Your task to perform on an android device: find snoozed emails in the gmail app Image 0: 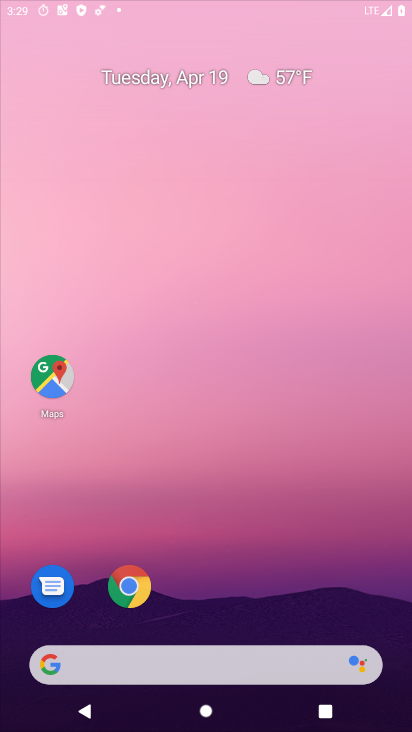
Step 0: click (303, 173)
Your task to perform on an android device: find snoozed emails in the gmail app Image 1: 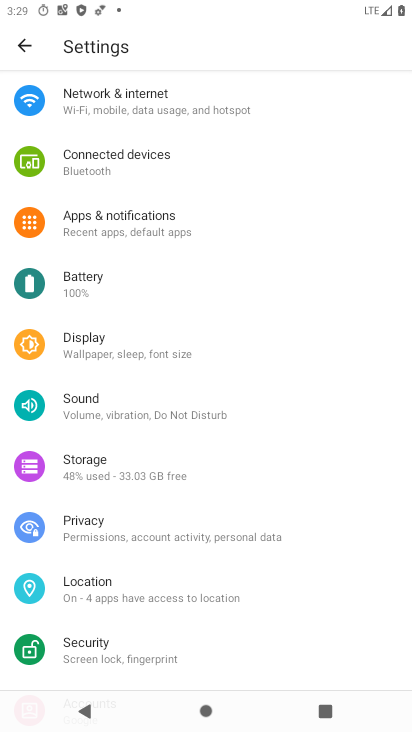
Step 1: press home button
Your task to perform on an android device: find snoozed emails in the gmail app Image 2: 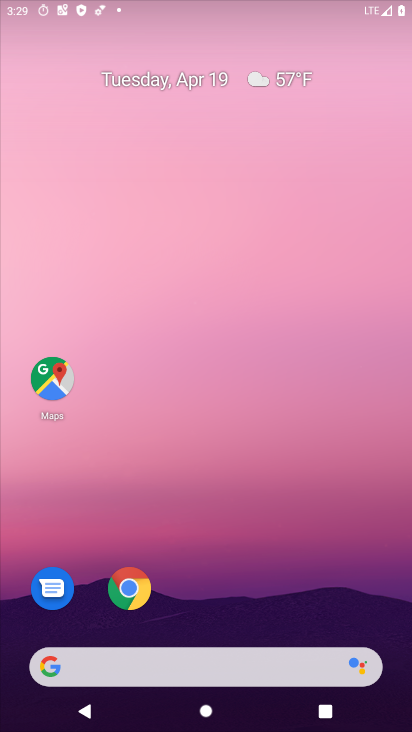
Step 2: drag from (286, 535) to (360, 162)
Your task to perform on an android device: find snoozed emails in the gmail app Image 3: 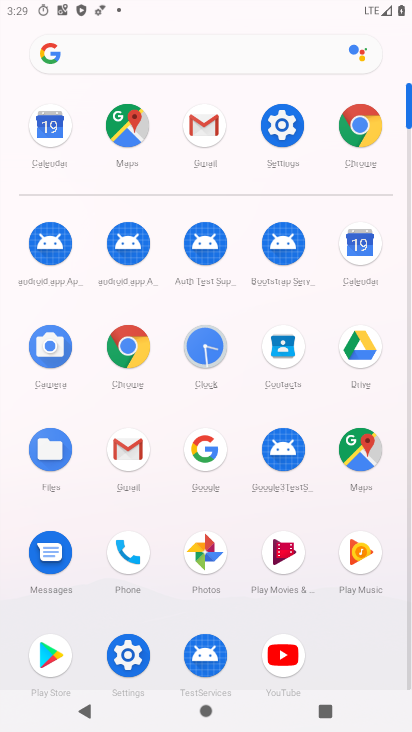
Step 3: click (129, 451)
Your task to perform on an android device: find snoozed emails in the gmail app Image 4: 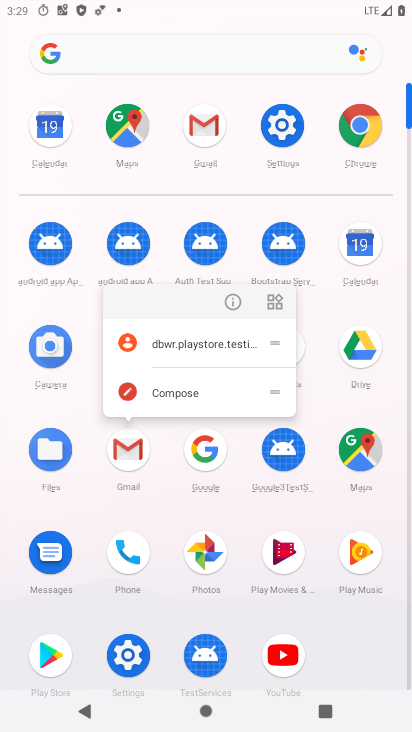
Step 4: click (228, 308)
Your task to perform on an android device: find snoozed emails in the gmail app Image 5: 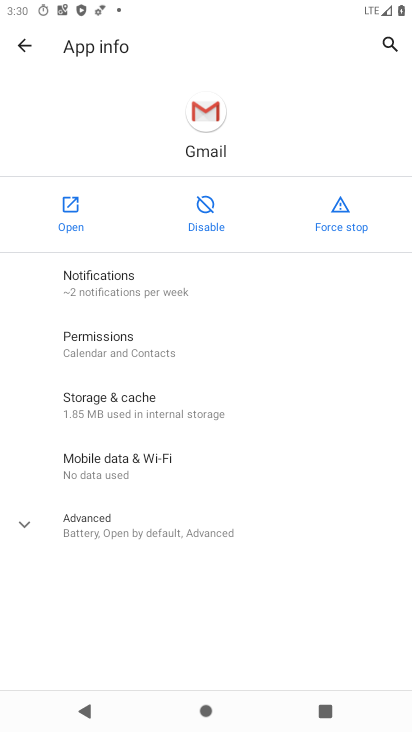
Step 5: click (73, 206)
Your task to perform on an android device: find snoozed emails in the gmail app Image 6: 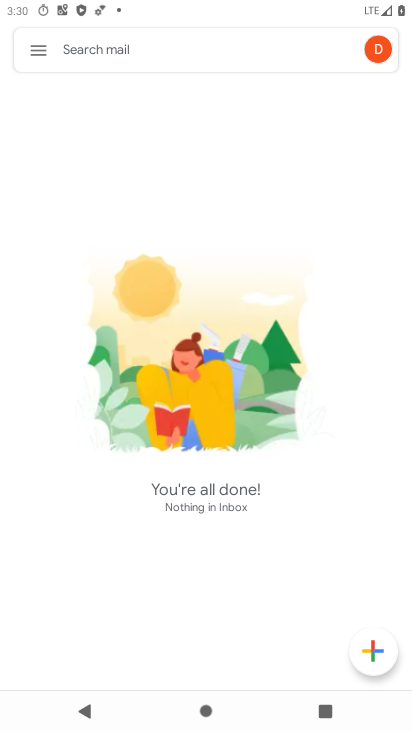
Step 6: click (42, 52)
Your task to perform on an android device: find snoozed emails in the gmail app Image 7: 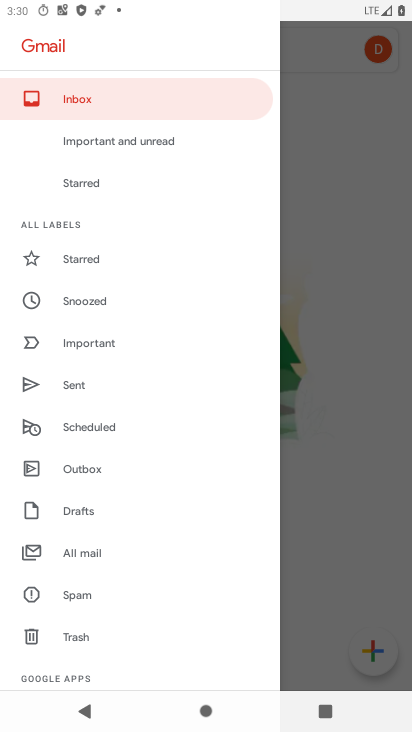
Step 7: drag from (107, 551) to (140, 224)
Your task to perform on an android device: find snoozed emails in the gmail app Image 8: 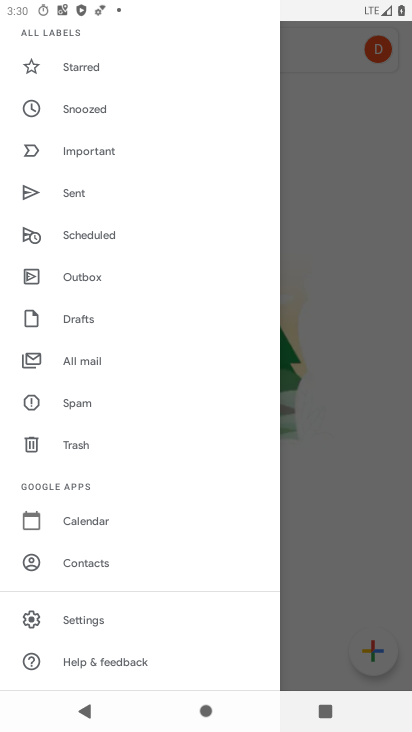
Step 8: click (127, 109)
Your task to perform on an android device: find snoozed emails in the gmail app Image 9: 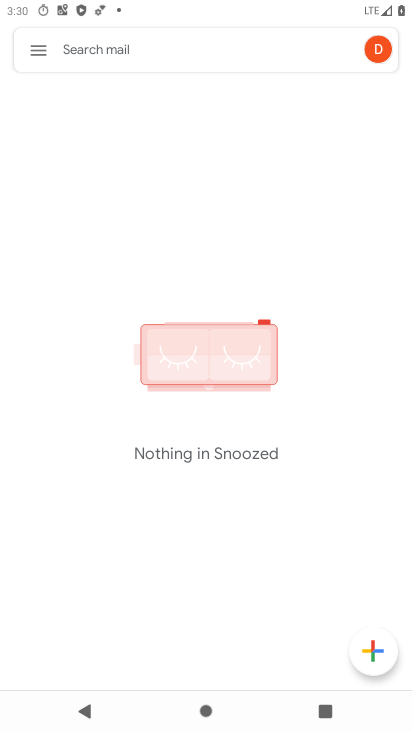
Step 9: task complete